Your task to perform on an android device: change notification settings in the gmail app Image 0: 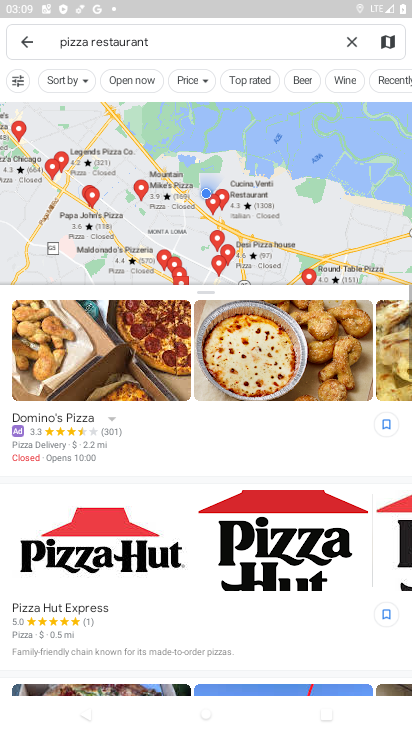
Step 0: press home button
Your task to perform on an android device: change notification settings in the gmail app Image 1: 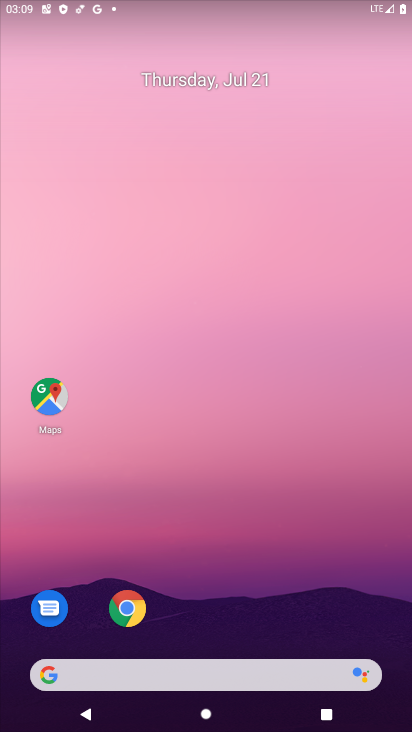
Step 1: drag from (219, 629) to (180, 107)
Your task to perform on an android device: change notification settings in the gmail app Image 2: 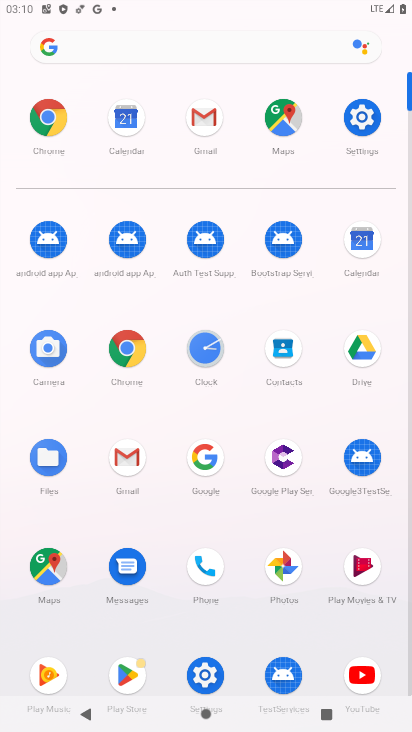
Step 2: click (136, 459)
Your task to perform on an android device: change notification settings in the gmail app Image 3: 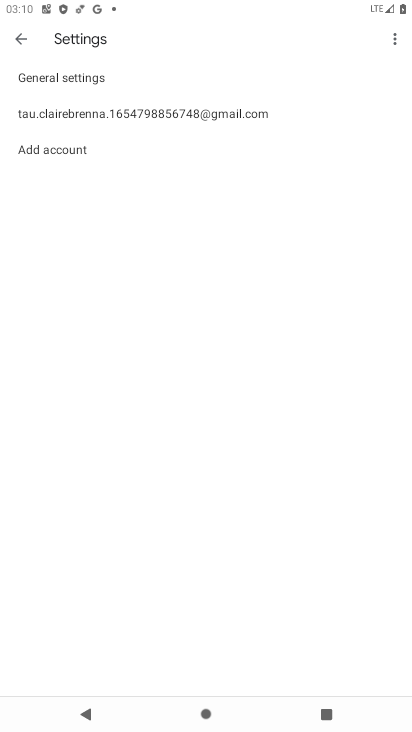
Step 3: click (25, 73)
Your task to perform on an android device: change notification settings in the gmail app Image 4: 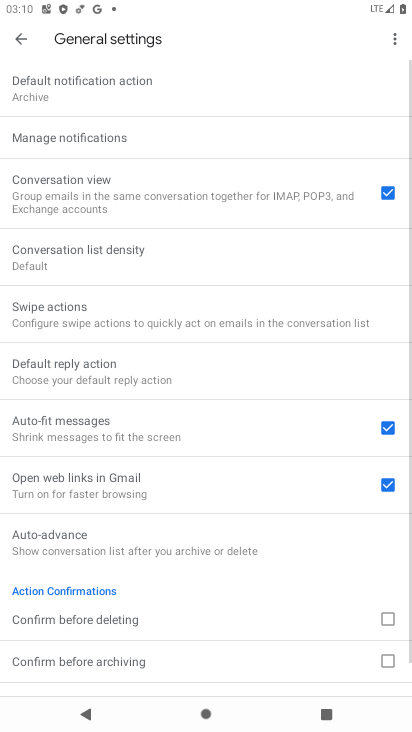
Step 4: click (68, 137)
Your task to perform on an android device: change notification settings in the gmail app Image 5: 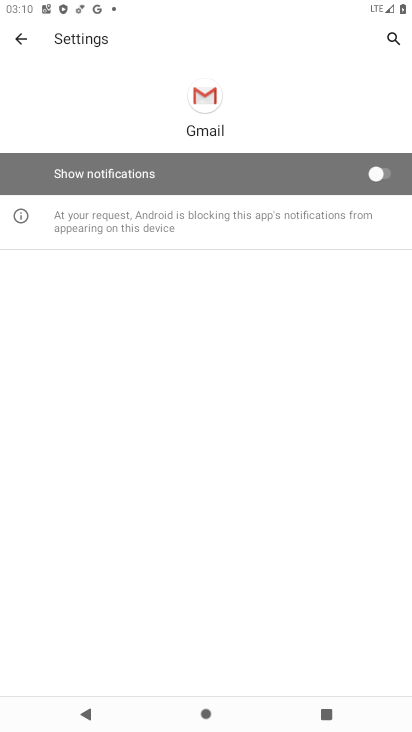
Step 5: task complete